Your task to perform on an android device: Open Reddit.com Image 0: 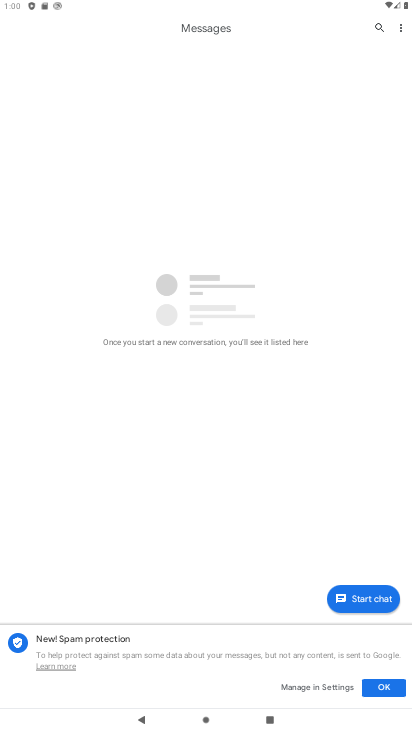
Step 0: press home button
Your task to perform on an android device: Open Reddit.com Image 1: 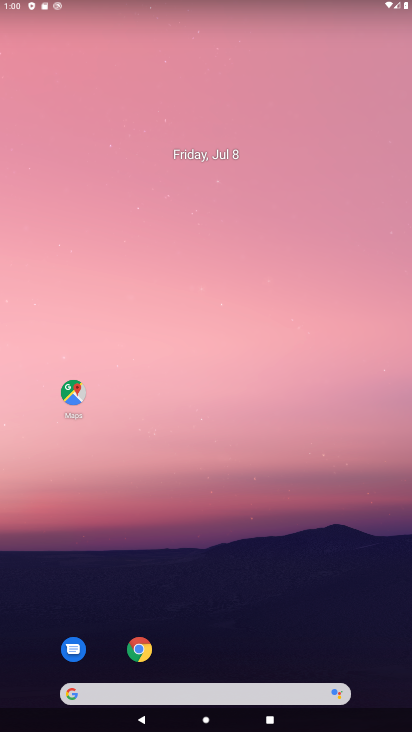
Step 1: drag from (281, 599) to (258, 125)
Your task to perform on an android device: Open Reddit.com Image 2: 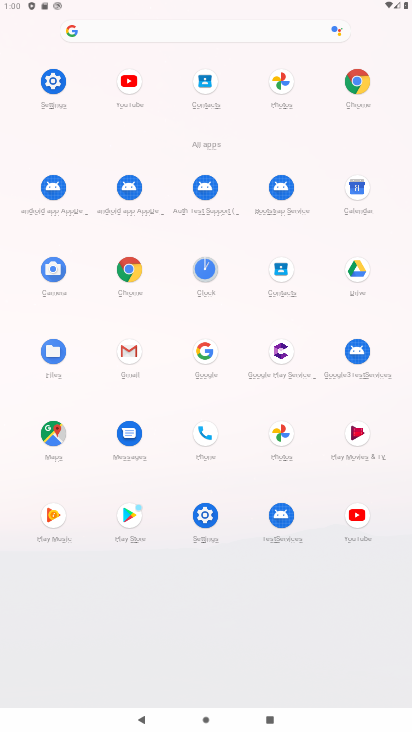
Step 2: click (358, 81)
Your task to perform on an android device: Open Reddit.com Image 3: 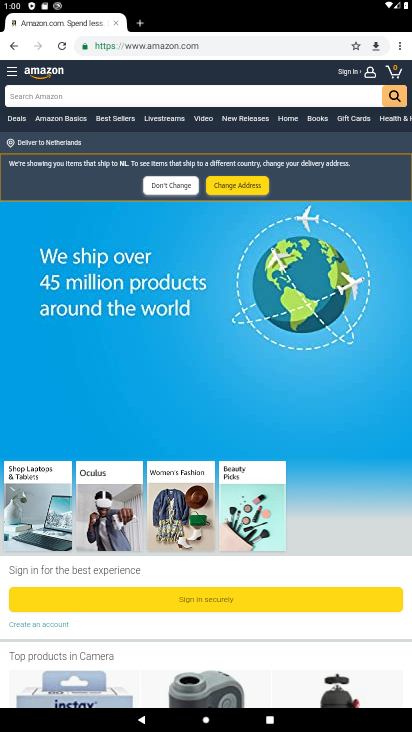
Step 3: click (169, 43)
Your task to perform on an android device: Open Reddit.com Image 4: 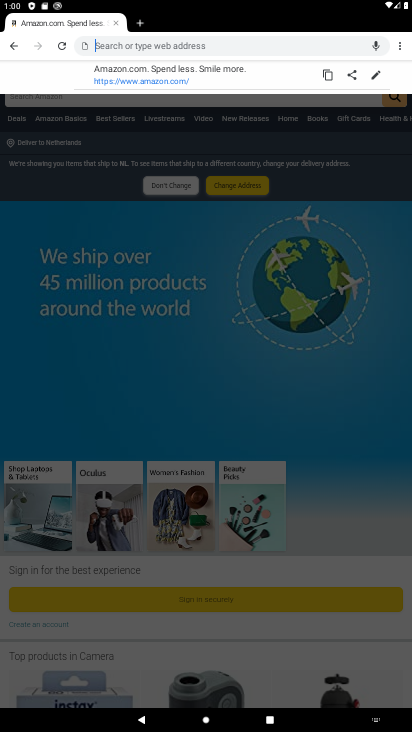
Step 4: type "Reddit.com"
Your task to perform on an android device: Open Reddit.com Image 5: 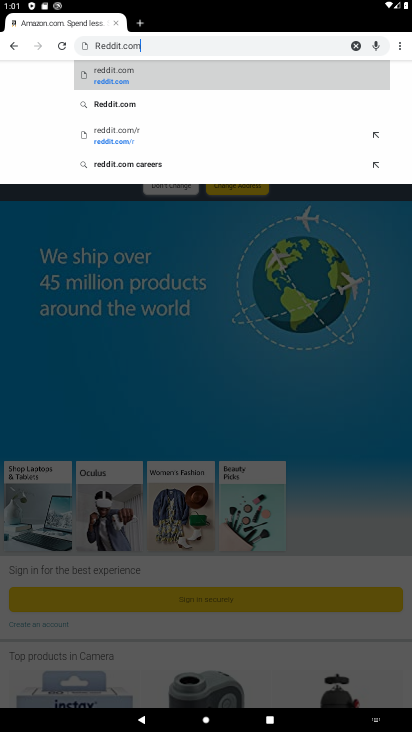
Step 5: click (116, 81)
Your task to perform on an android device: Open Reddit.com Image 6: 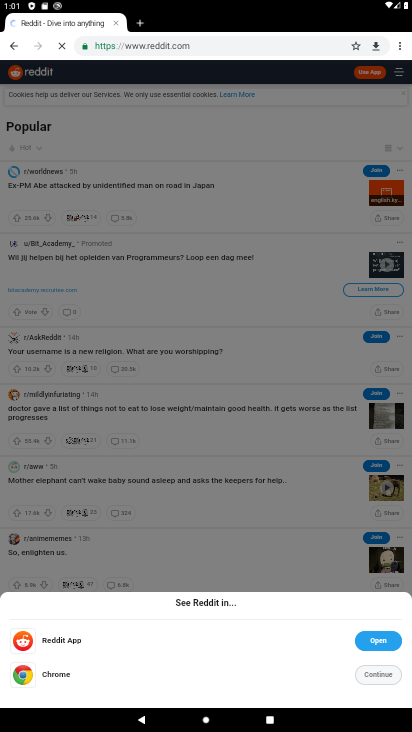
Step 6: task complete